Your task to perform on an android device: Go to privacy settings Image 0: 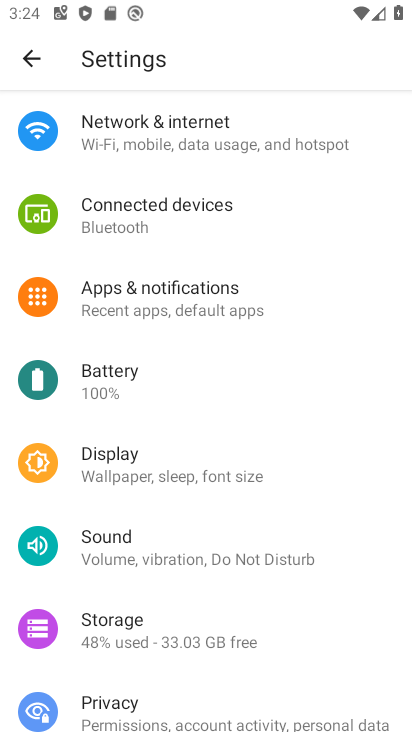
Step 0: press back button
Your task to perform on an android device: Go to privacy settings Image 1: 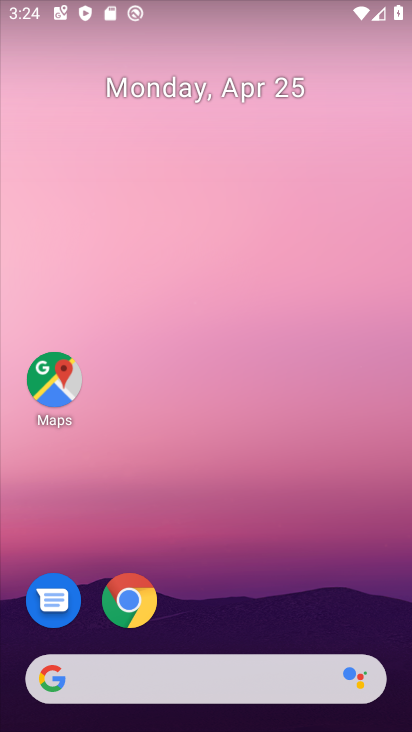
Step 1: drag from (256, 452) to (286, 31)
Your task to perform on an android device: Go to privacy settings Image 2: 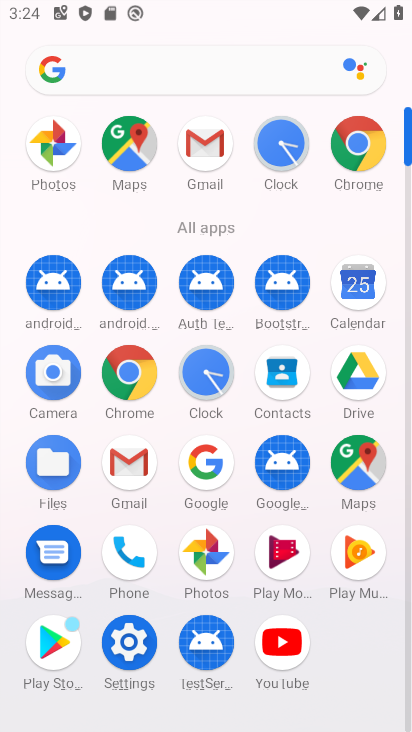
Step 2: click (357, 140)
Your task to perform on an android device: Go to privacy settings Image 3: 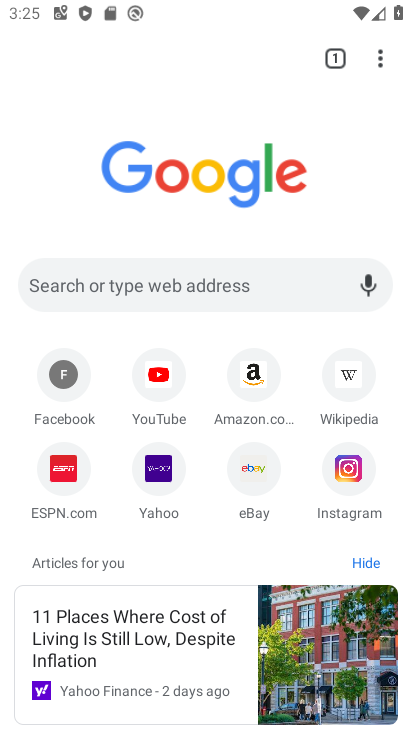
Step 3: drag from (375, 64) to (194, 558)
Your task to perform on an android device: Go to privacy settings Image 4: 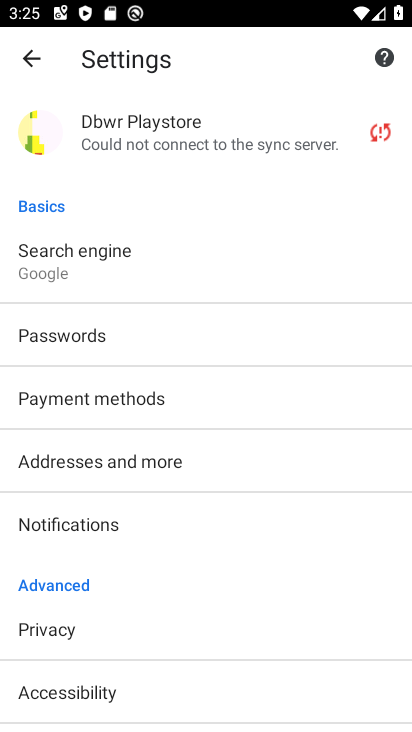
Step 4: drag from (200, 569) to (224, 189)
Your task to perform on an android device: Go to privacy settings Image 5: 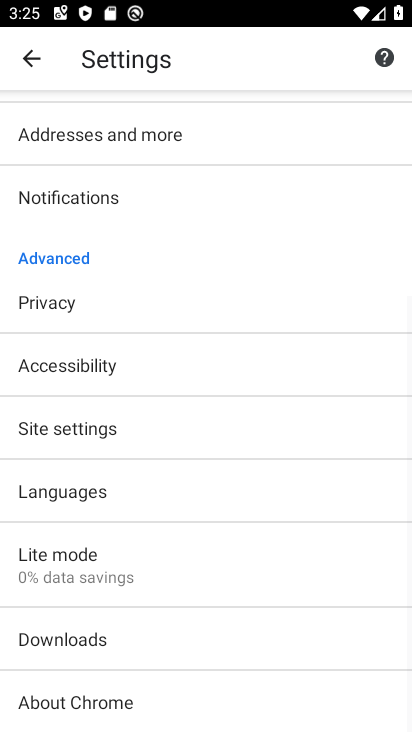
Step 5: click (114, 310)
Your task to perform on an android device: Go to privacy settings Image 6: 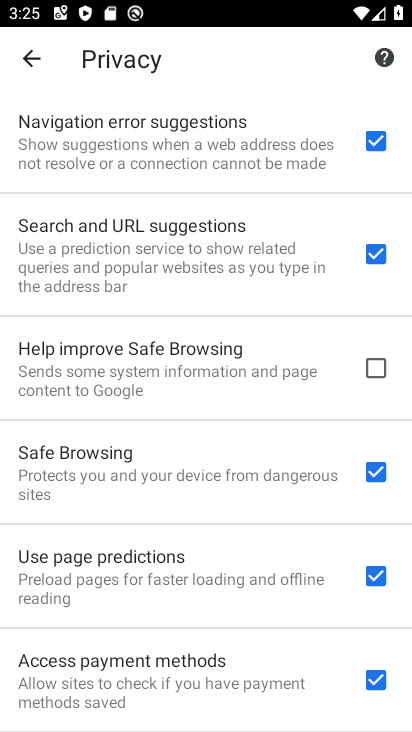
Step 6: task complete